Your task to perform on an android device: Go to Yahoo.com Image 0: 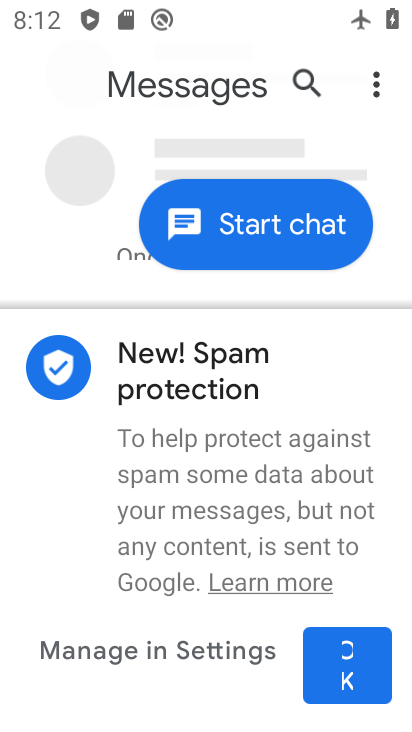
Step 0: press back button
Your task to perform on an android device: Go to Yahoo.com Image 1: 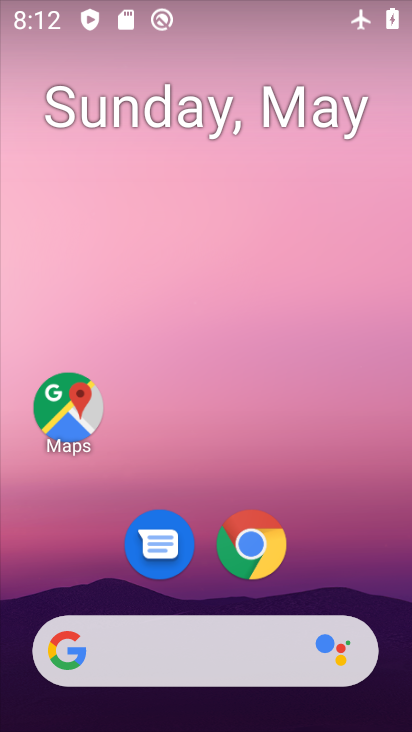
Step 1: drag from (322, 516) to (260, 13)
Your task to perform on an android device: Go to Yahoo.com Image 2: 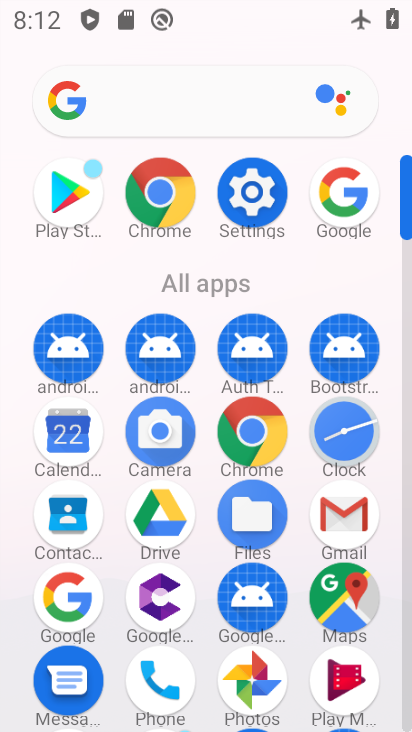
Step 2: click (161, 190)
Your task to perform on an android device: Go to Yahoo.com Image 3: 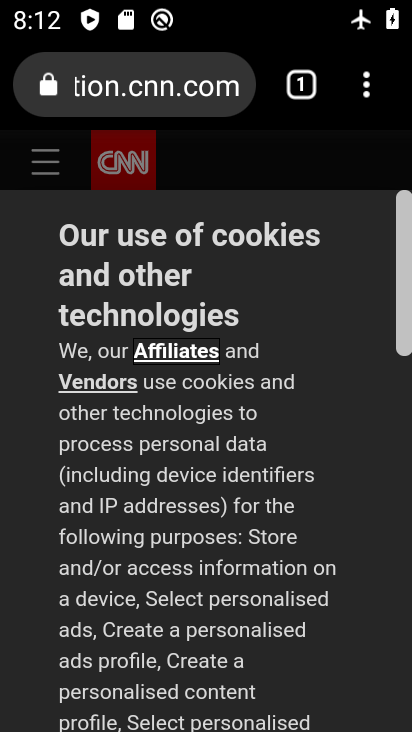
Step 3: click (140, 69)
Your task to perform on an android device: Go to Yahoo.com Image 4: 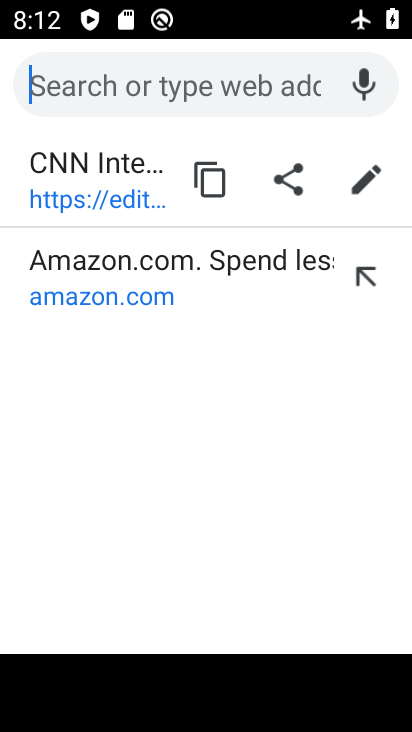
Step 4: type "Yahoo.com"
Your task to perform on an android device: Go to Yahoo.com Image 5: 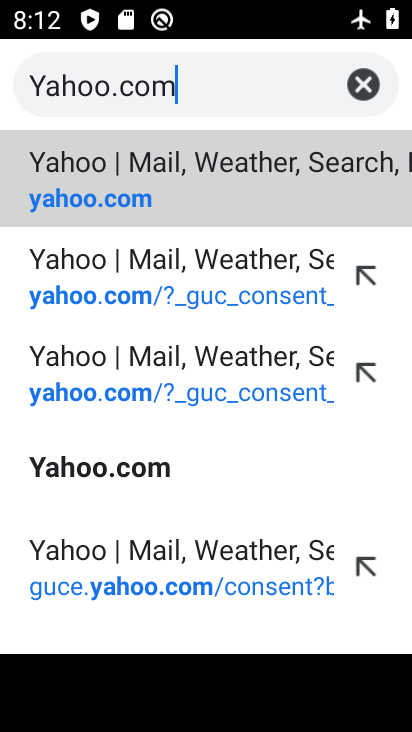
Step 5: type ""
Your task to perform on an android device: Go to Yahoo.com Image 6: 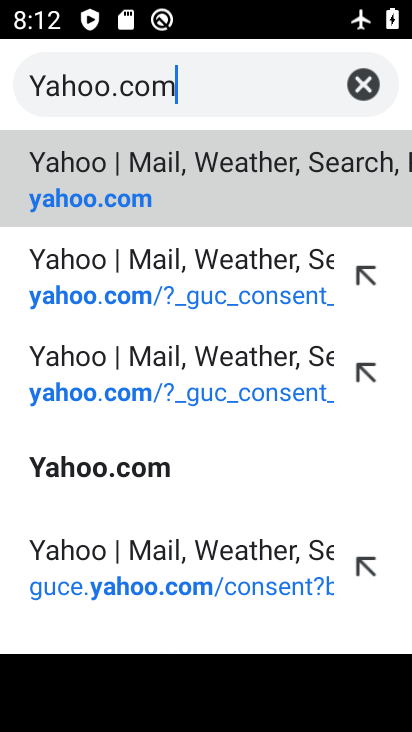
Step 6: click (171, 179)
Your task to perform on an android device: Go to Yahoo.com Image 7: 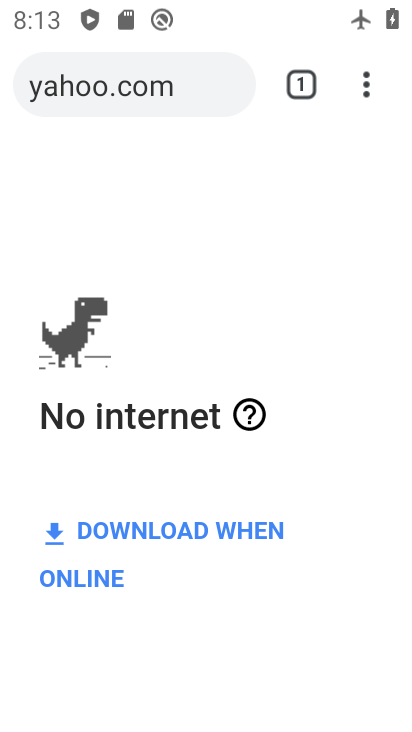
Step 7: task complete